Your task to perform on an android device: open chrome privacy settings Image 0: 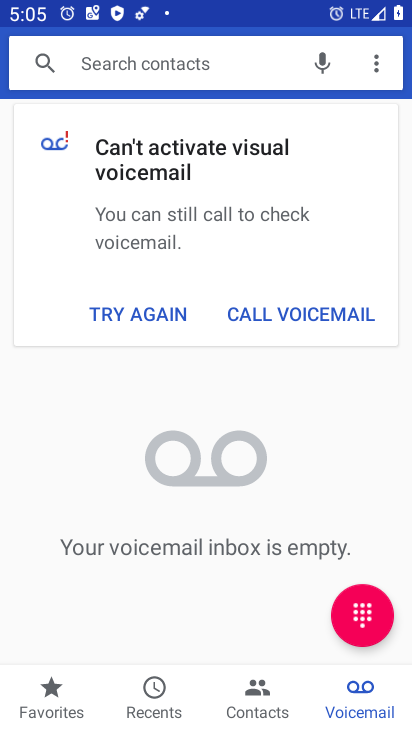
Step 0: press home button
Your task to perform on an android device: open chrome privacy settings Image 1: 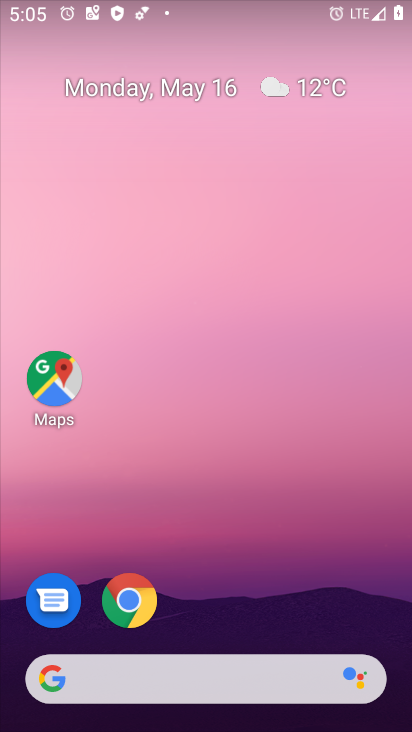
Step 1: click (125, 593)
Your task to perform on an android device: open chrome privacy settings Image 2: 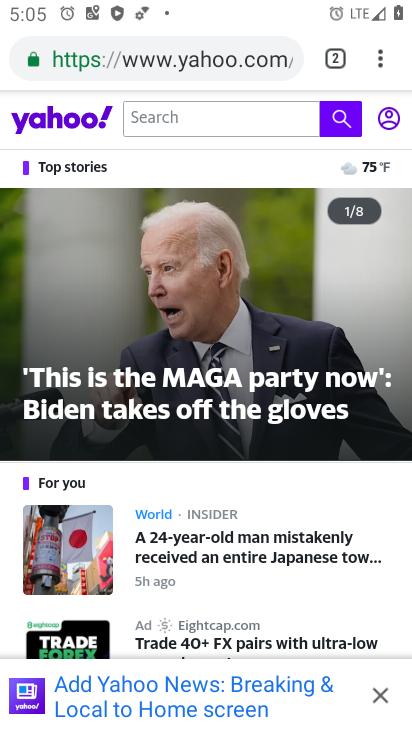
Step 2: click (379, 59)
Your task to perform on an android device: open chrome privacy settings Image 3: 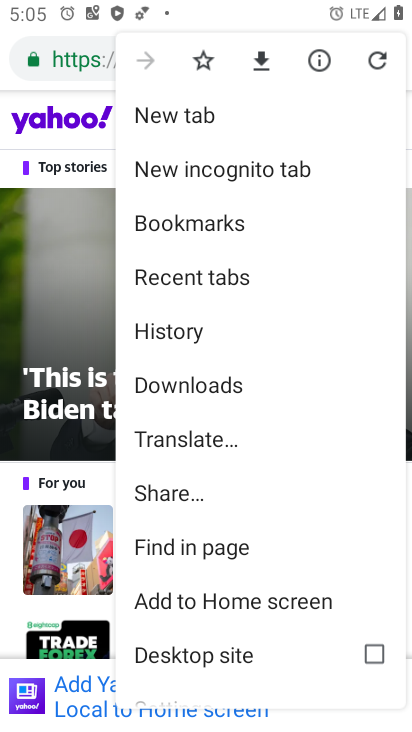
Step 3: drag from (232, 458) to (214, 228)
Your task to perform on an android device: open chrome privacy settings Image 4: 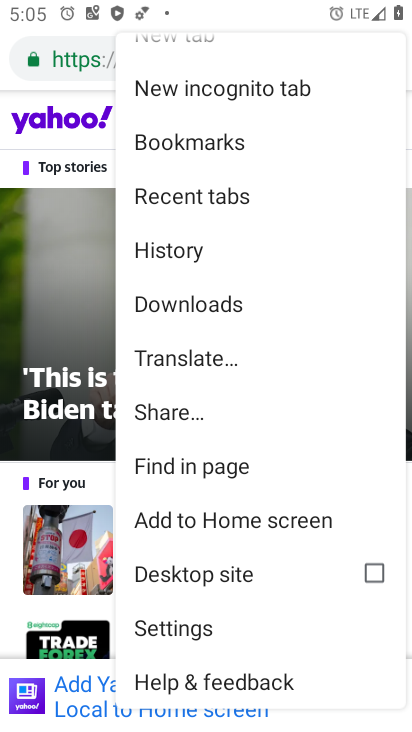
Step 4: click (176, 628)
Your task to perform on an android device: open chrome privacy settings Image 5: 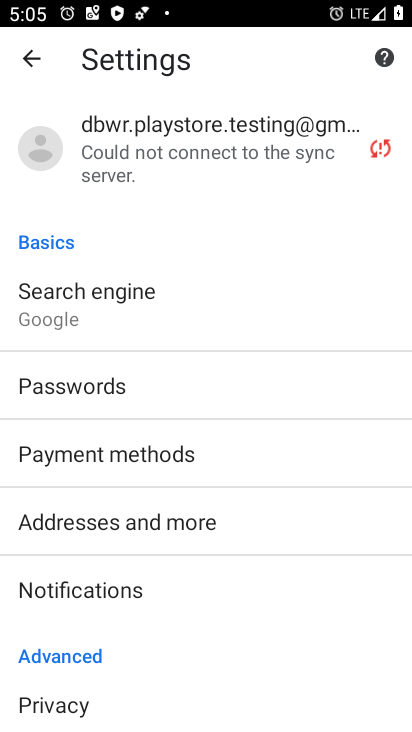
Step 5: drag from (127, 713) to (129, 351)
Your task to perform on an android device: open chrome privacy settings Image 6: 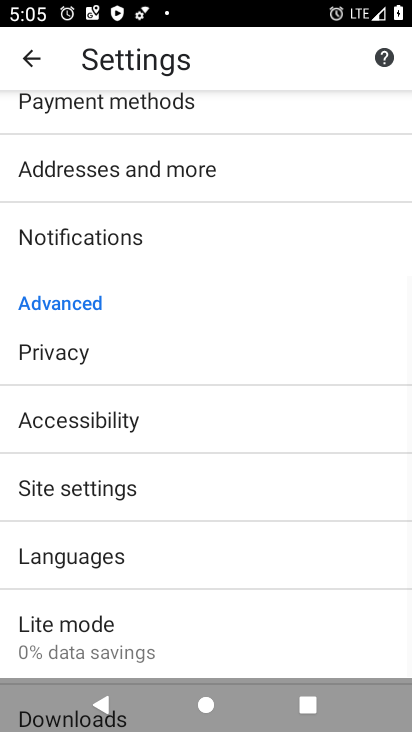
Step 6: click (69, 344)
Your task to perform on an android device: open chrome privacy settings Image 7: 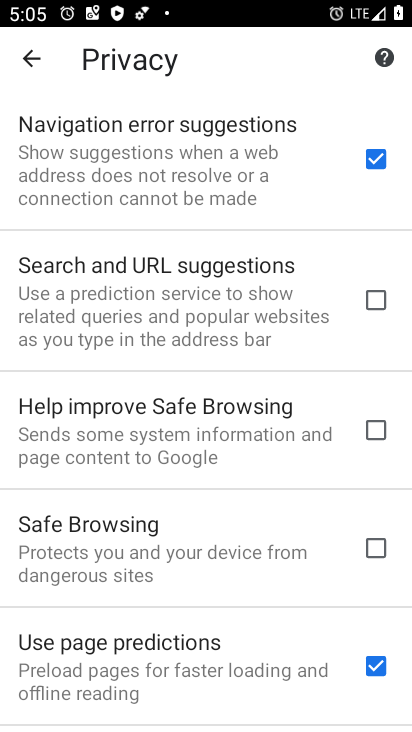
Step 7: task complete